Your task to perform on an android device: toggle show notifications on the lock screen Image 0: 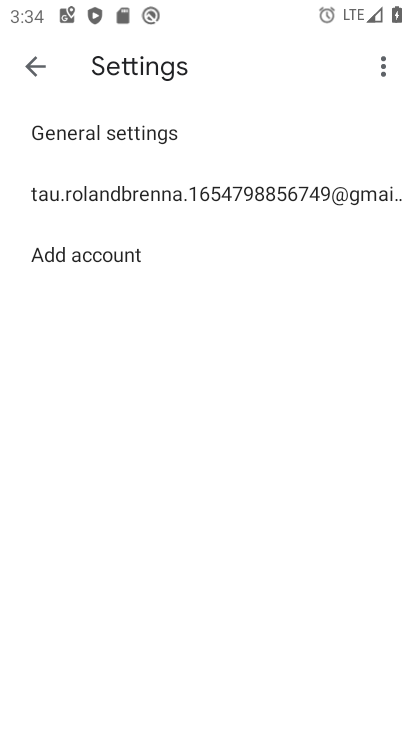
Step 0: press home button
Your task to perform on an android device: toggle show notifications on the lock screen Image 1: 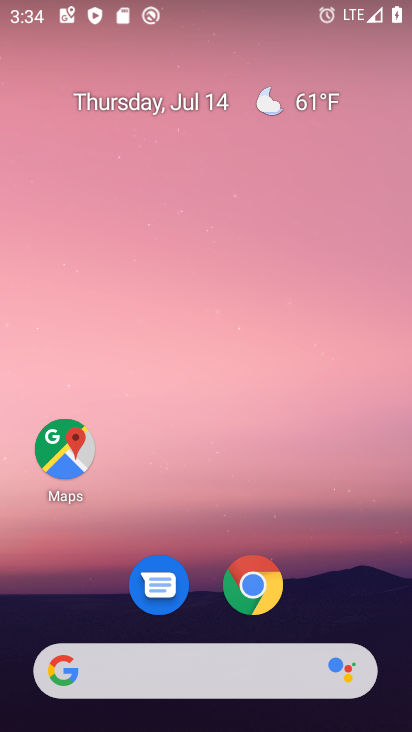
Step 1: drag from (355, 505) to (320, 131)
Your task to perform on an android device: toggle show notifications on the lock screen Image 2: 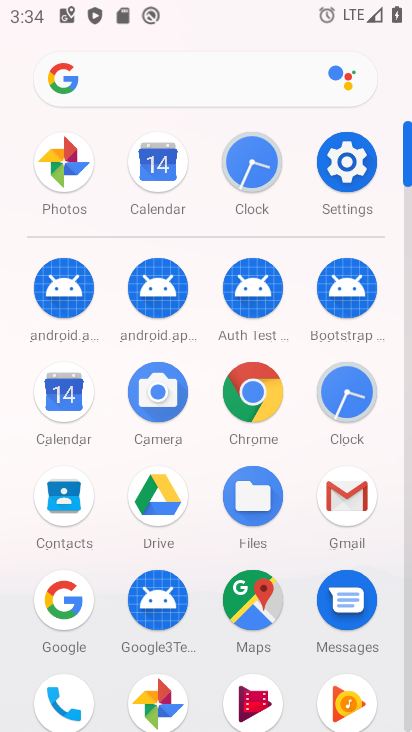
Step 2: click (337, 174)
Your task to perform on an android device: toggle show notifications on the lock screen Image 3: 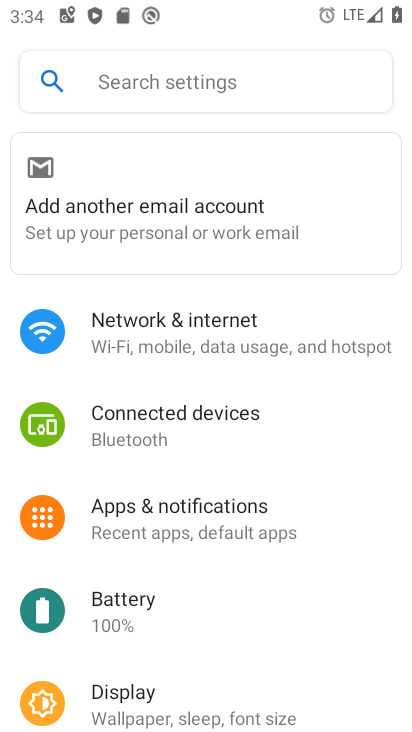
Step 3: click (248, 522)
Your task to perform on an android device: toggle show notifications on the lock screen Image 4: 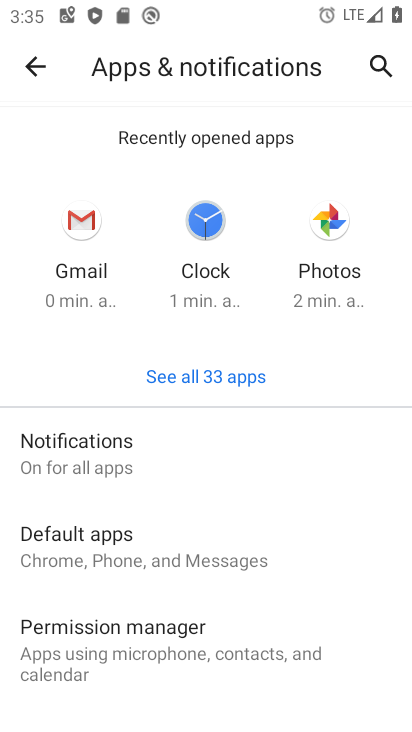
Step 4: click (115, 450)
Your task to perform on an android device: toggle show notifications on the lock screen Image 5: 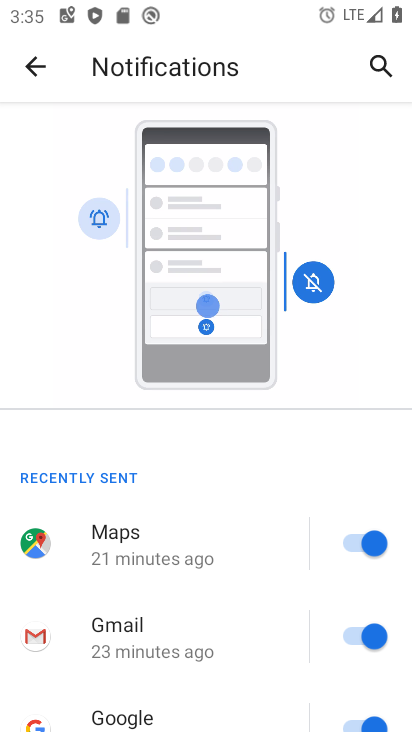
Step 5: drag from (231, 617) to (260, 128)
Your task to perform on an android device: toggle show notifications on the lock screen Image 6: 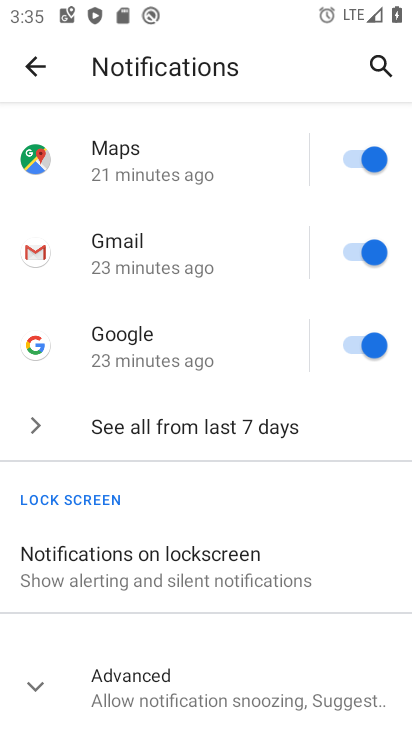
Step 6: click (204, 570)
Your task to perform on an android device: toggle show notifications on the lock screen Image 7: 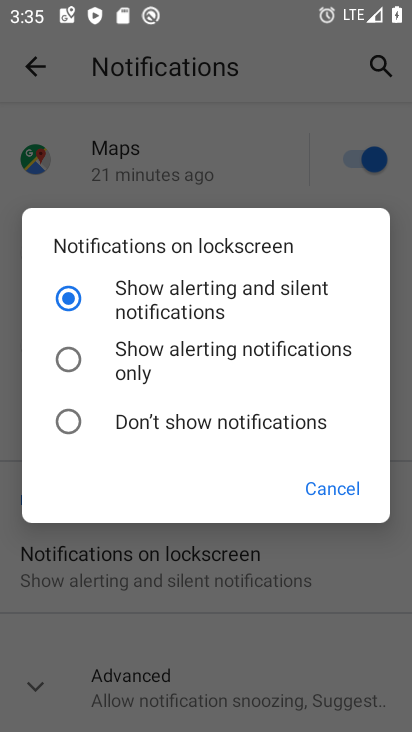
Step 7: click (69, 421)
Your task to perform on an android device: toggle show notifications on the lock screen Image 8: 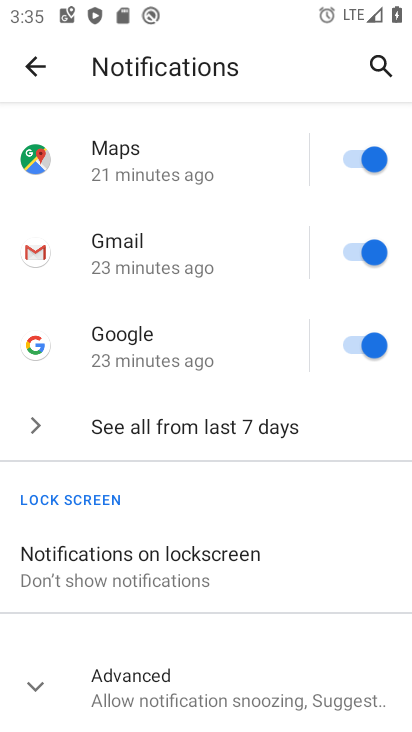
Step 8: task complete